Your task to perform on an android device: Open Youtube and go to "Your channel" Image 0: 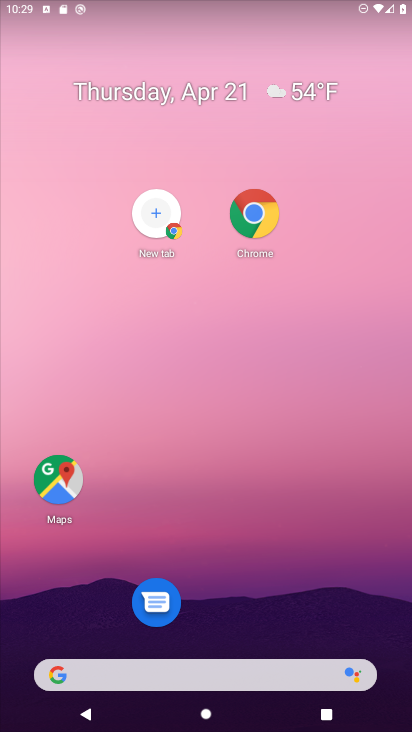
Step 0: drag from (233, 618) to (249, 3)
Your task to perform on an android device: Open Youtube and go to "Your channel" Image 1: 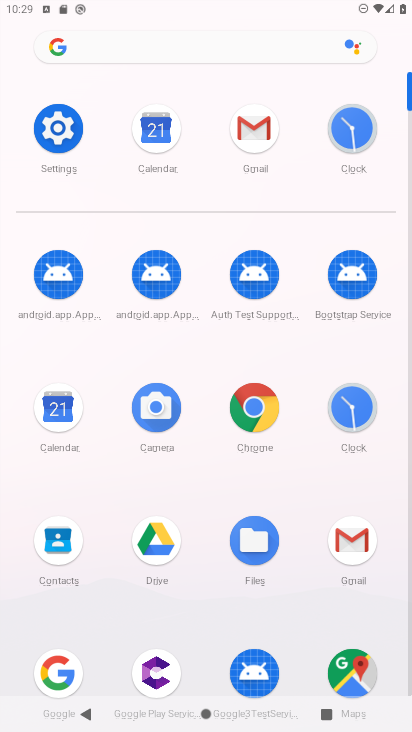
Step 1: drag from (208, 609) to (208, 43)
Your task to perform on an android device: Open Youtube and go to "Your channel" Image 2: 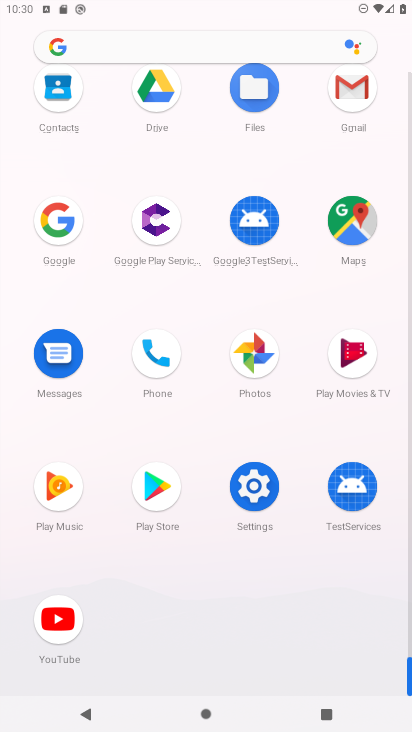
Step 2: click (57, 619)
Your task to perform on an android device: Open Youtube and go to "Your channel" Image 3: 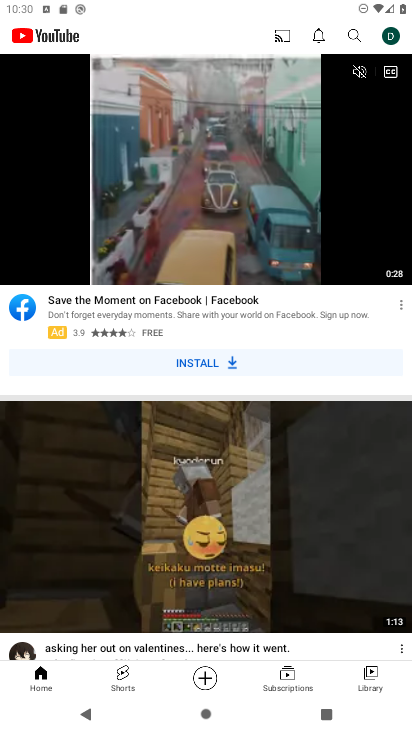
Step 3: click (361, 35)
Your task to perform on an android device: Open Youtube and go to "Your channel" Image 4: 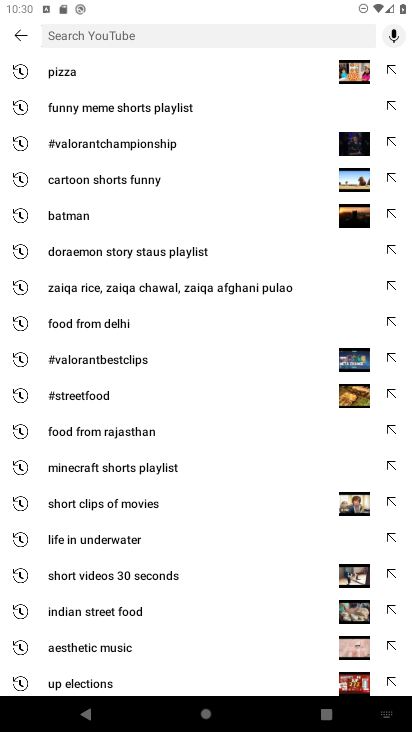
Step 4: type "your channel"
Your task to perform on an android device: Open Youtube and go to "Your channel" Image 5: 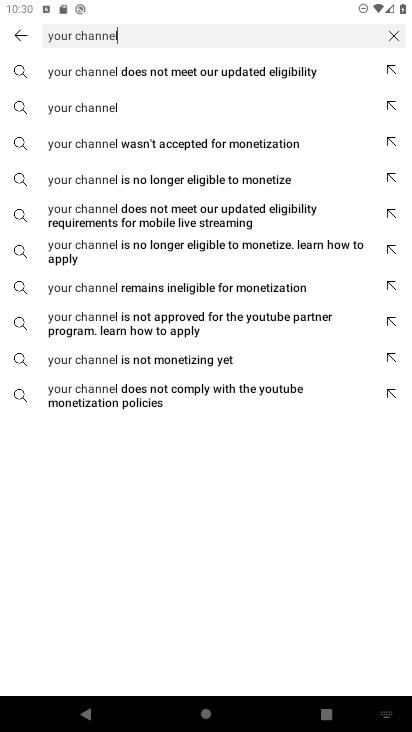
Step 5: click (241, 114)
Your task to perform on an android device: Open Youtube and go to "Your channel" Image 6: 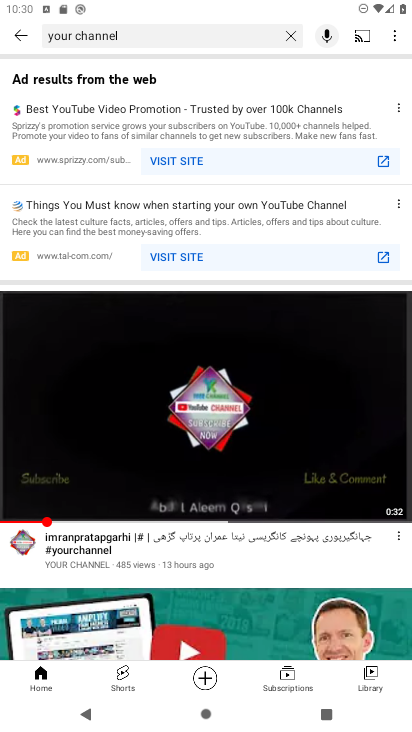
Step 6: task complete